Your task to perform on an android device: Open the clock Image 0: 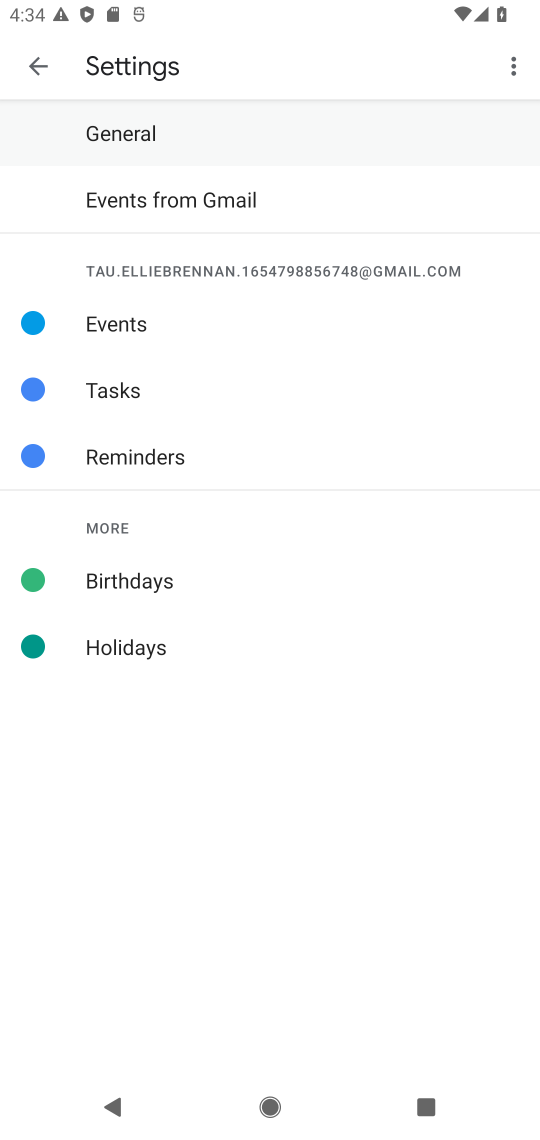
Step 0: press home button
Your task to perform on an android device: Open the clock Image 1: 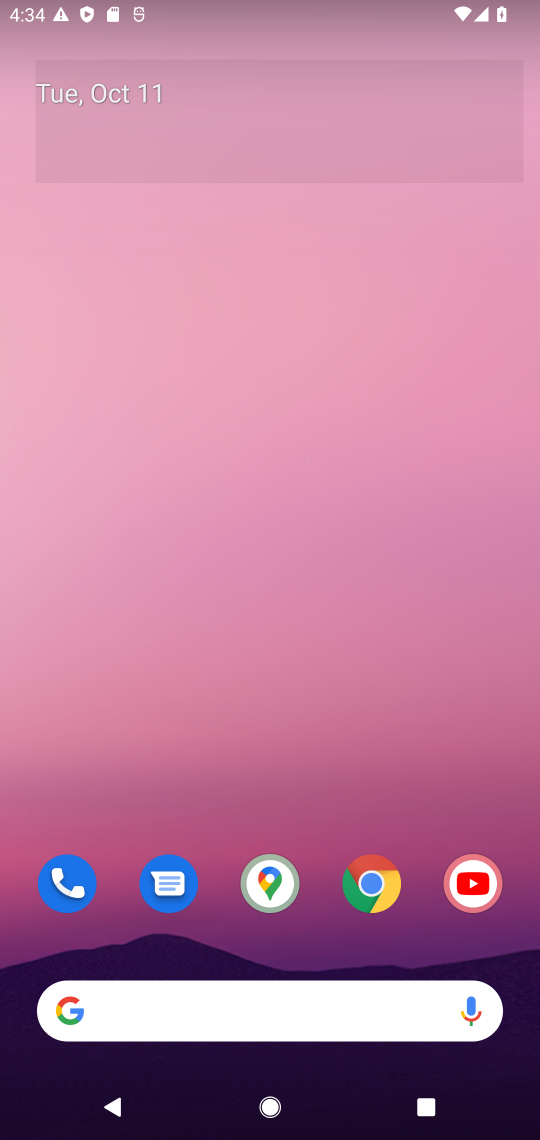
Step 1: drag from (324, 940) to (374, 92)
Your task to perform on an android device: Open the clock Image 2: 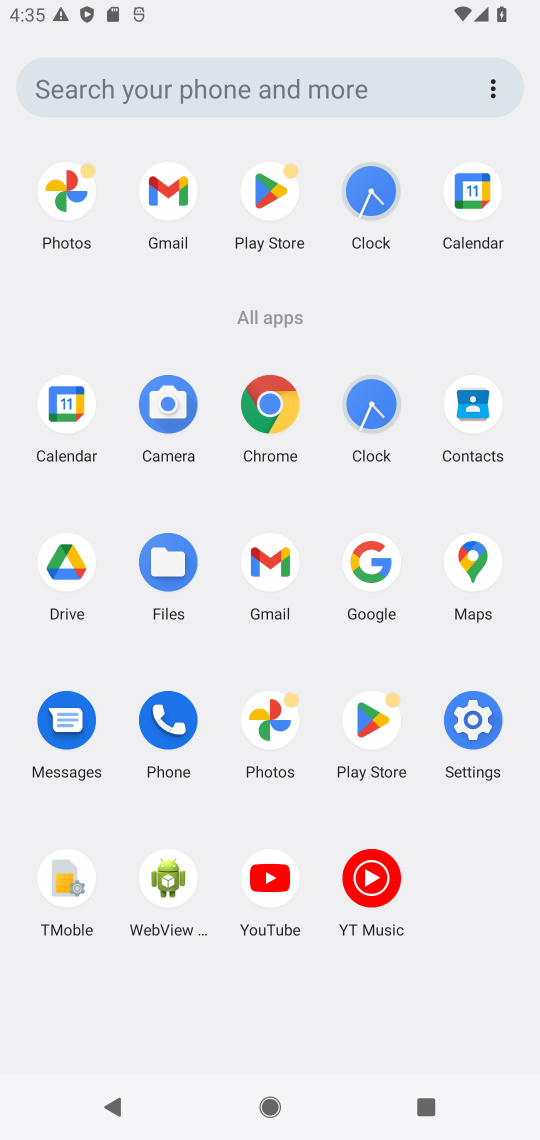
Step 2: click (370, 409)
Your task to perform on an android device: Open the clock Image 3: 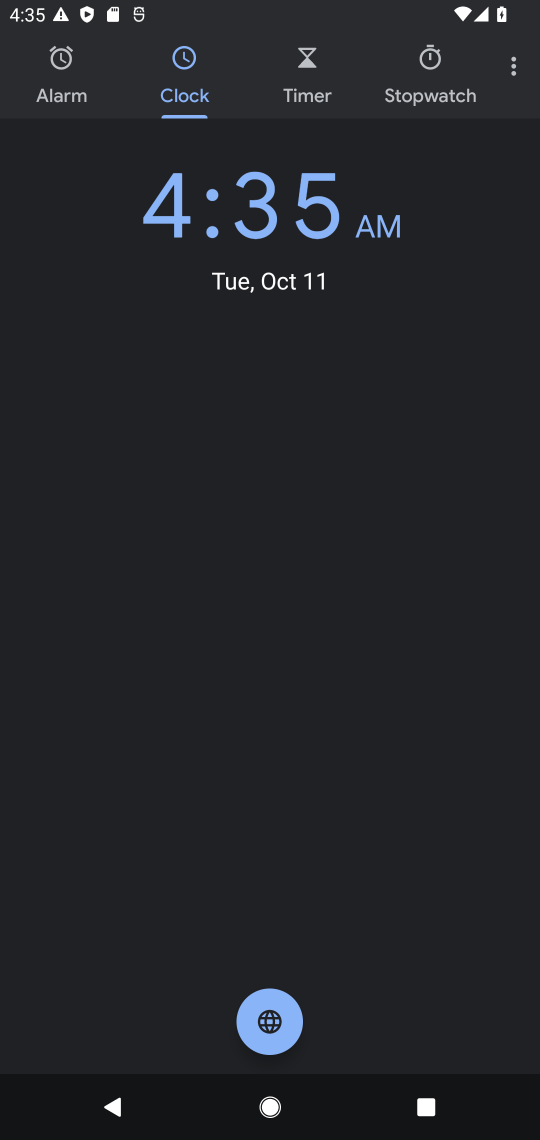
Step 3: task complete